Your task to perform on an android device: Go to Google Image 0: 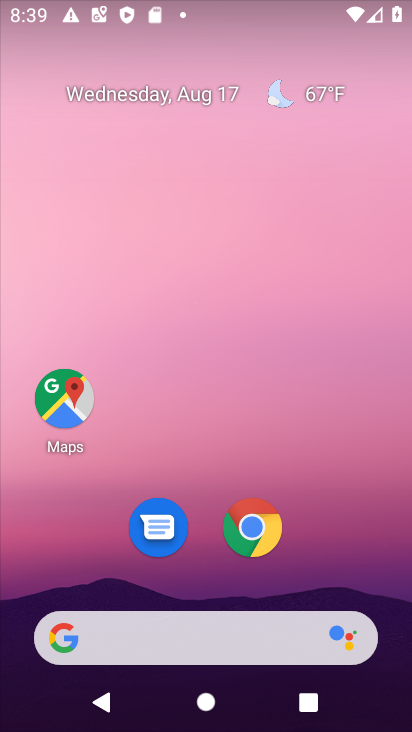
Step 0: click (177, 635)
Your task to perform on an android device: Go to Google Image 1: 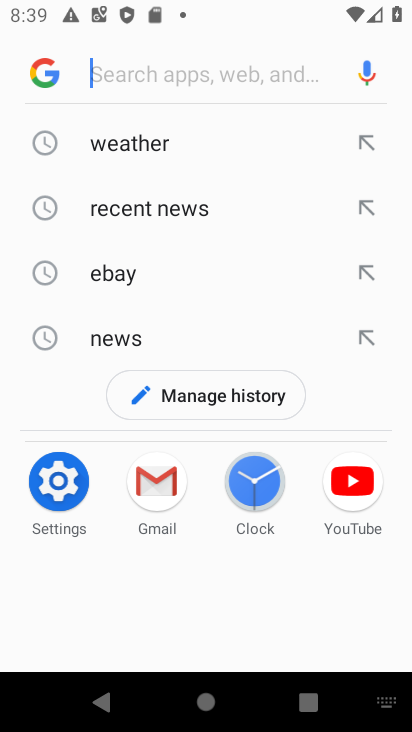
Step 1: task complete